Your task to perform on an android device: create a new album in the google photos Image 0: 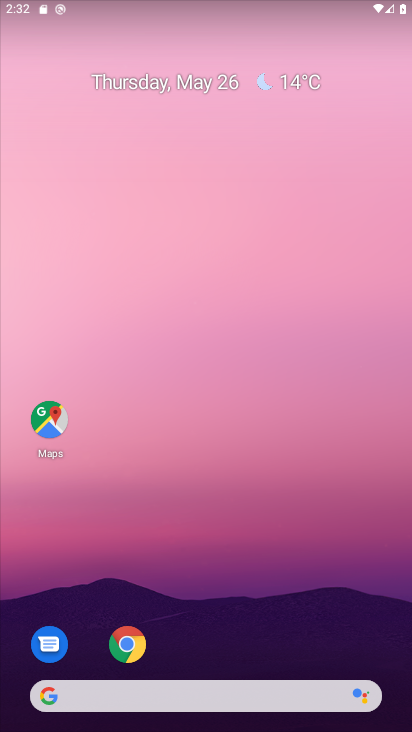
Step 0: drag from (305, 548) to (250, 126)
Your task to perform on an android device: create a new album in the google photos Image 1: 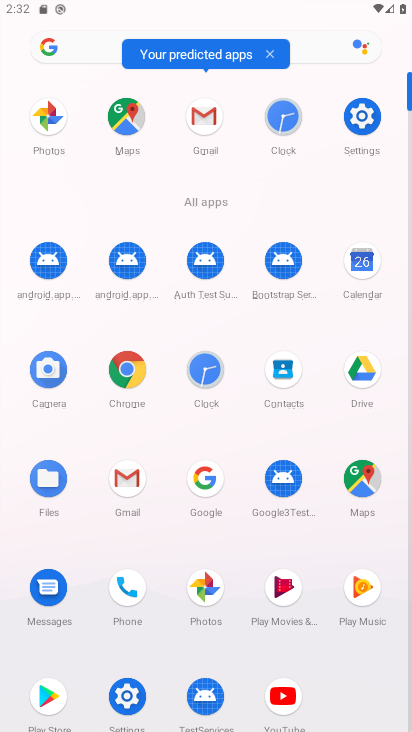
Step 1: click (203, 586)
Your task to perform on an android device: create a new album in the google photos Image 2: 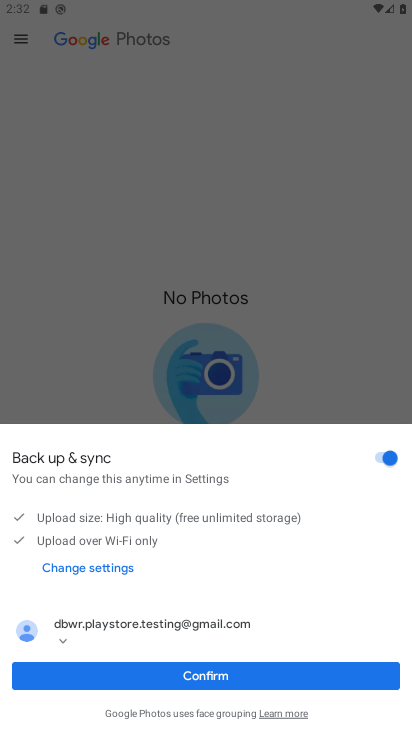
Step 2: click (236, 670)
Your task to perform on an android device: create a new album in the google photos Image 3: 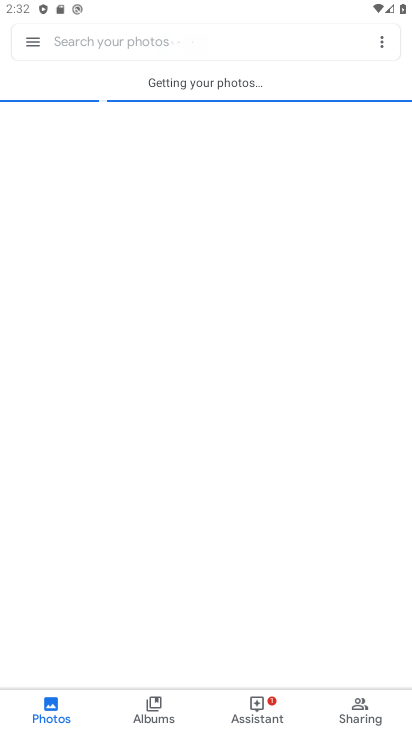
Step 3: click (162, 708)
Your task to perform on an android device: create a new album in the google photos Image 4: 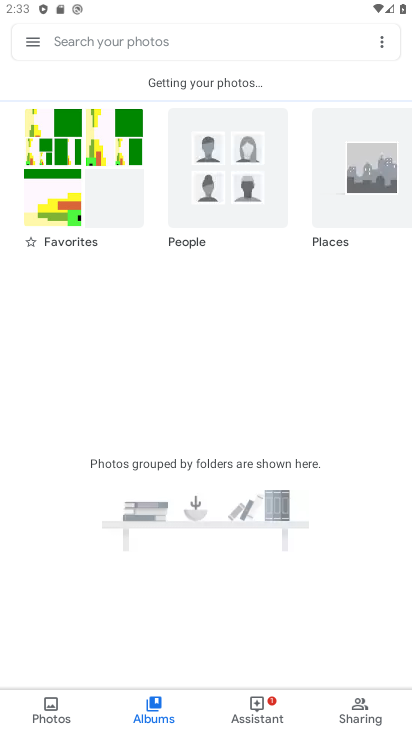
Step 4: task complete